Your task to perform on an android device: Is it going to rain today? Image 0: 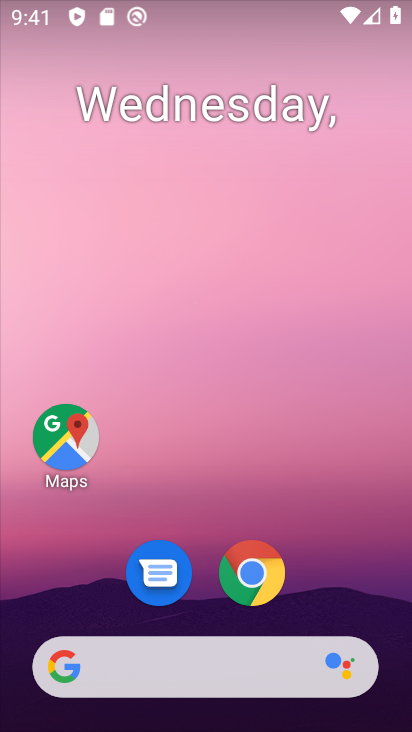
Step 0: click (223, 682)
Your task to perform on an android device: Is it going to rain today? Image 1: 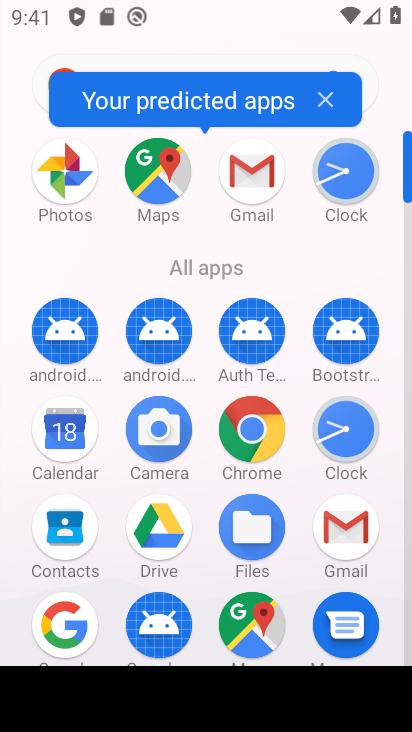
Step 1: click (328, 104)
Your task to perform on an android device: Is it going to rain today? Image 2: 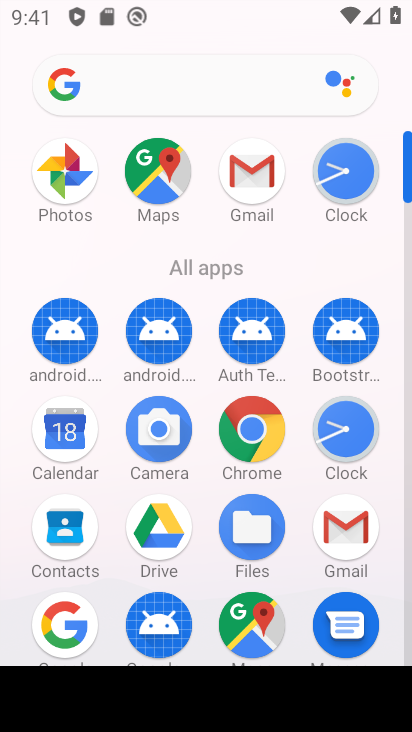
Step 2: click (157, 88)
Your task to perform on an android device: Is it going to rain today? Image 3: 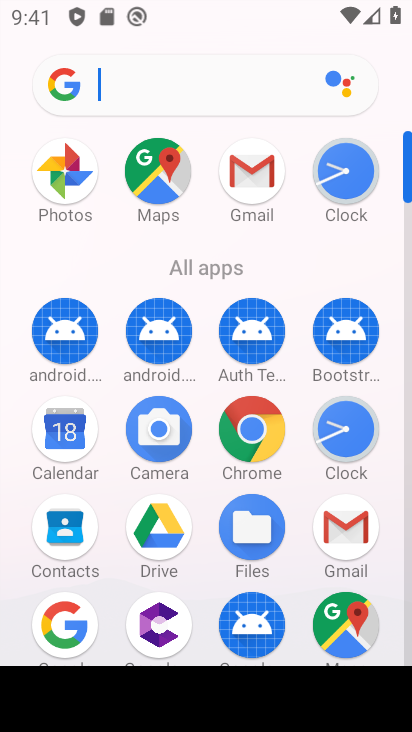
Step 3: click (129, 83)
Your task to perform on an android device: Is it going to rain today? Image 4: 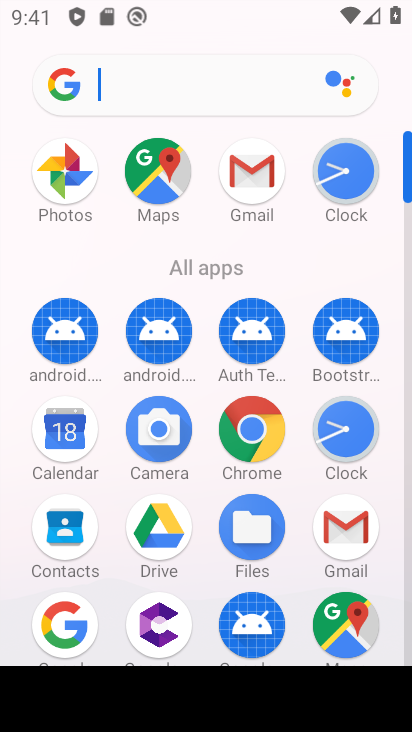
Step 4: drag from (379, 507) to (374, 233)
Your task to perform on an android device: Is it going to rain today? Image 5: 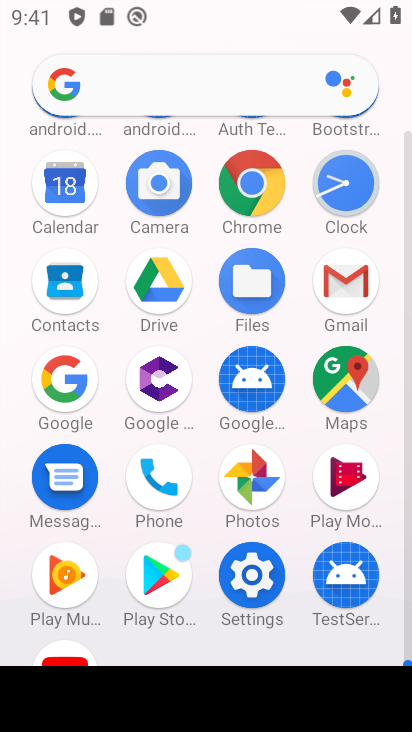
Step 5: click (59, 384)
Your task to perform on an android device: Is it going to rain today? Image 6: 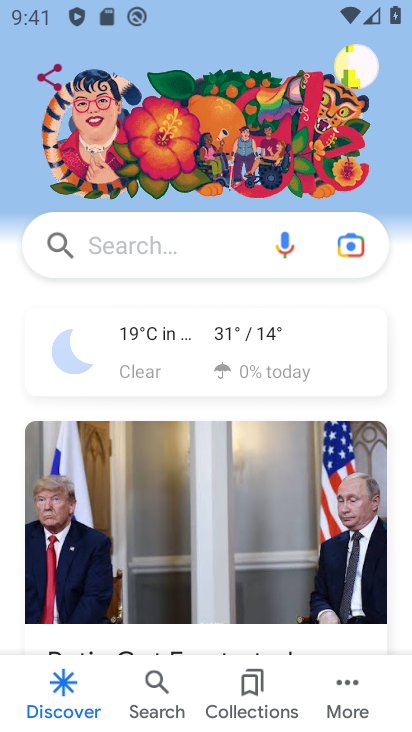
Step 6: click (140, 237)
Your task to perform on an android device: Is it going to rain today? Image 7: 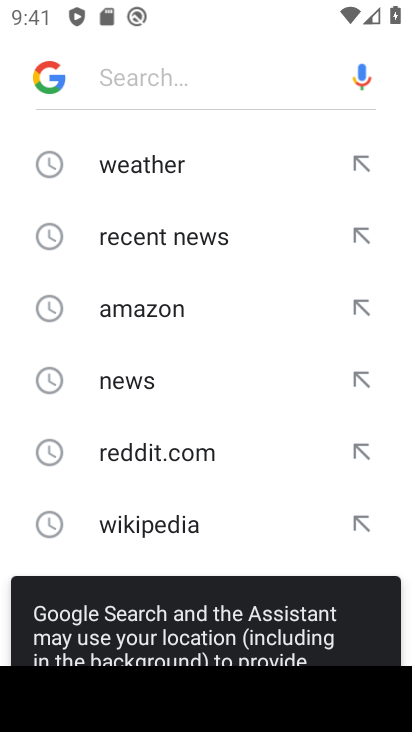
Step 7: click (157, 167)
Your task to perform on an android device: Is it going to rain today? Image 8: 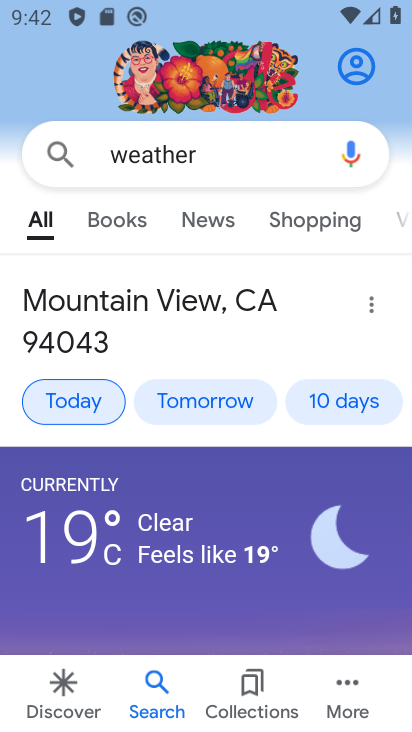
Step 8: task complete